Your task to perform on an android device: What's on my calendar tomorrow? Image 0: 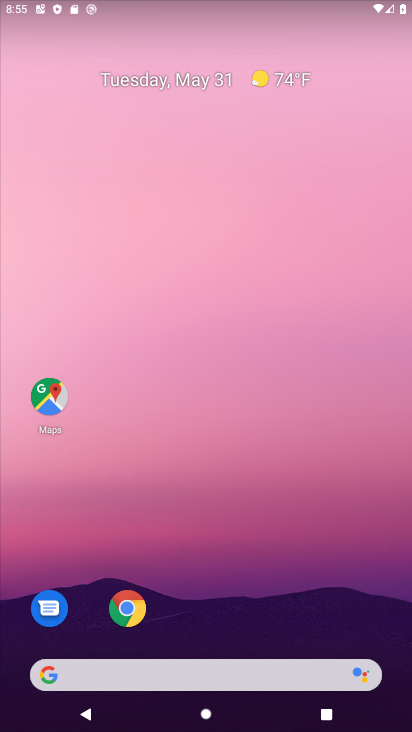
Step 0: drag from (193, 647) to (151, 55)
Your task to perform on an android device: What's on my calendar tomorrow? Image 1: 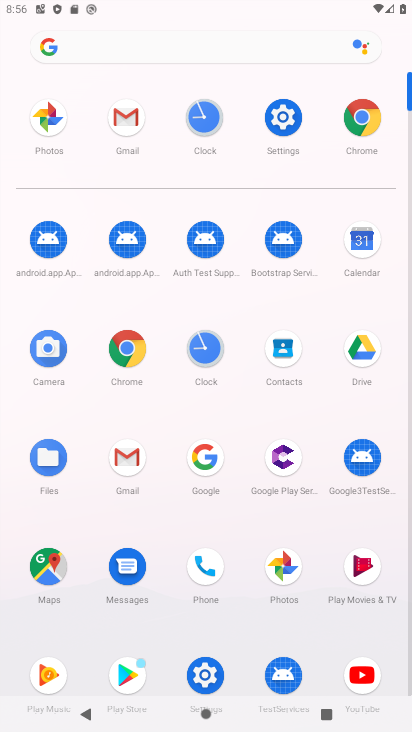
Step 1: click (367, 252)
Your task to perform on an android device: What's on my calendar tomorrow? Image 2: 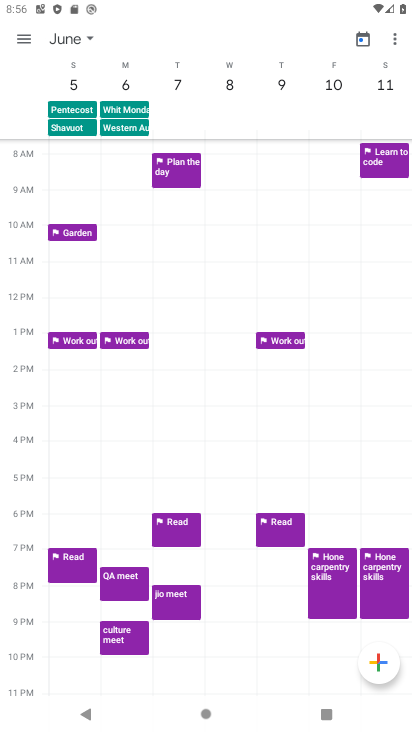
Step 2: click (351, 30)
Your task to perform on an android device: What's on my calendar tomorrow? Image 3: 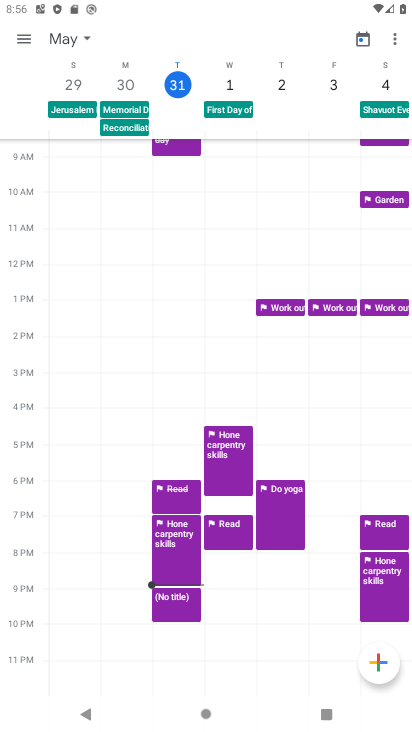
Step 3: click (228, 87)
Your task to perform on an android device: What's on my calendar tomorrow? Image 4: 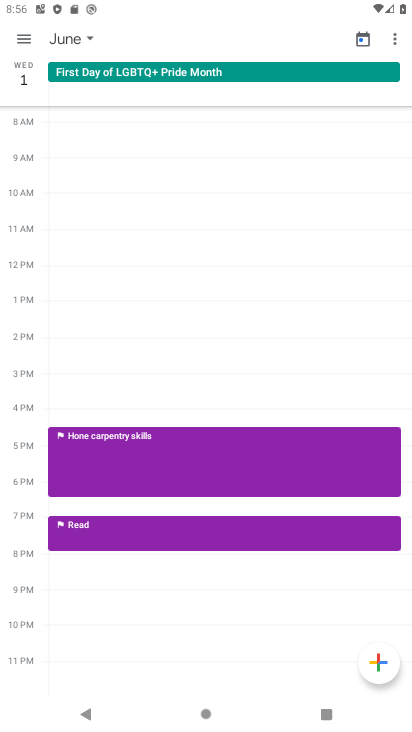
Step 4: task complete